Your task to perform on an android device: clear history in the chrome app Image 0: 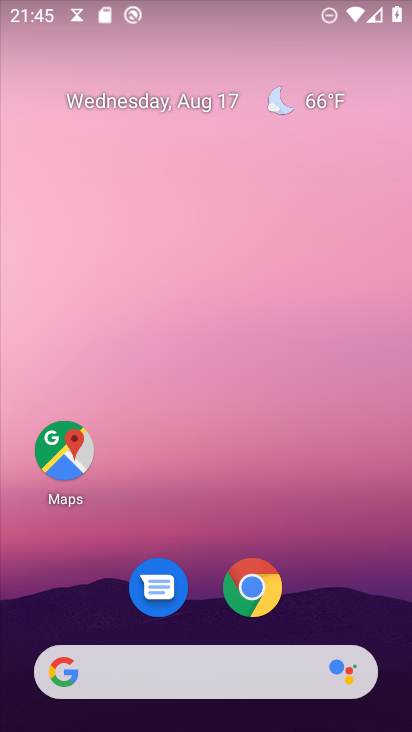
Step 0: click (249, 597)
Your task to perform on an android device: clear history in the chrome app Image 1: 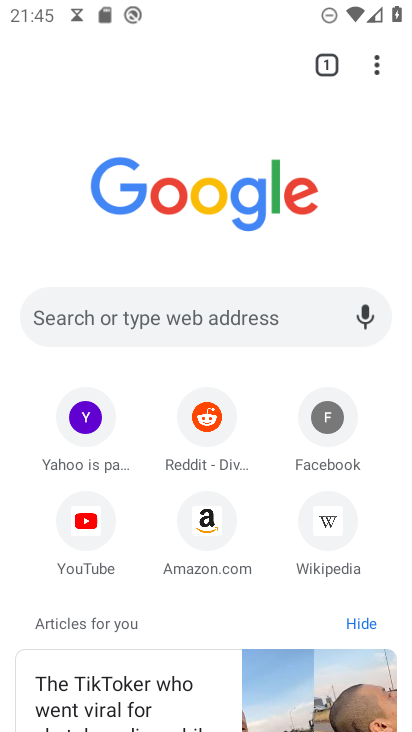
Step 1: click (381, 77)
Your task to perform on an android device: clear history in the chrome app Image 2: 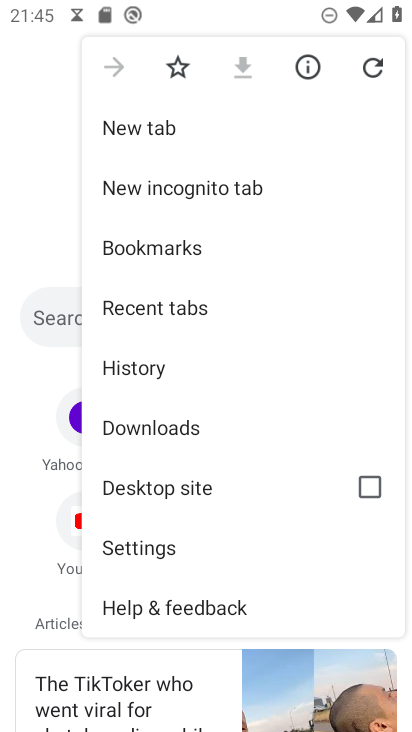
Step 2: click (133, 250)
Your task to perform on an android device: clear history in the chrome app Image 3: 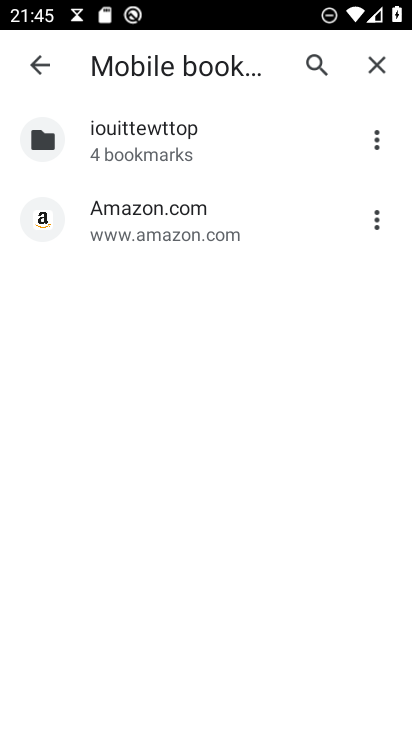
Step 3: click (42, 63)
Your task to perform on an android device: clear history in the chrome app Image 4: 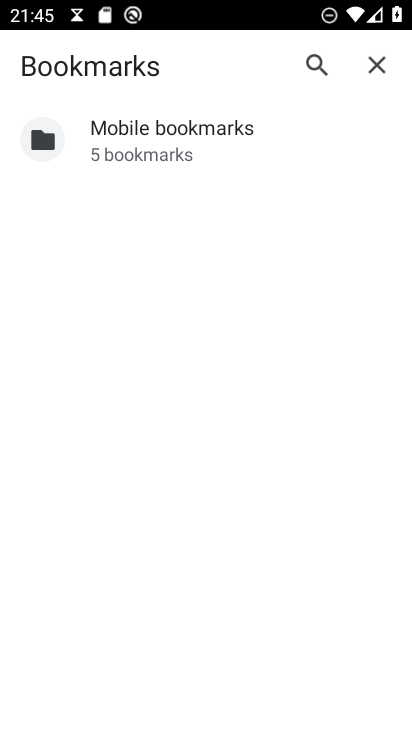
Step 4: click (382, 62)
Your task to perform on an android device: clear history in the chrome app Image 5: 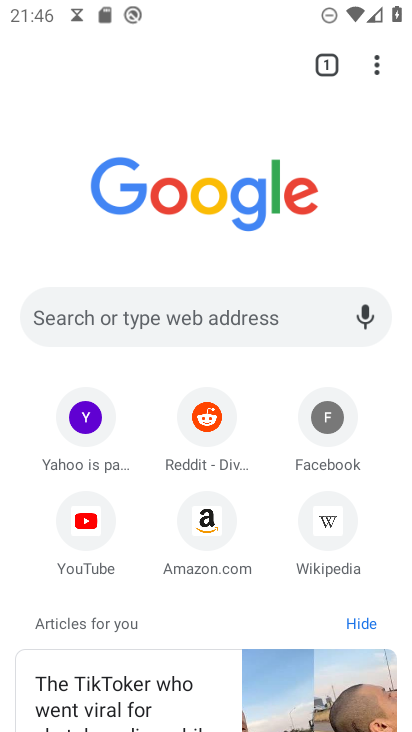
Step 5: click (384, 63)
Your task to perform on an android device: clear history in the chrome app Image 6: 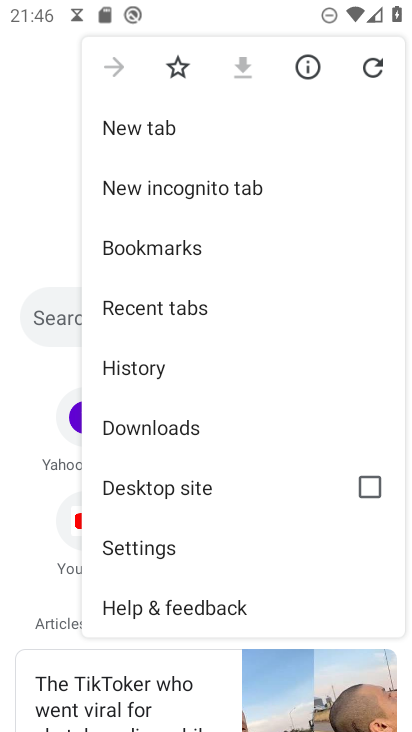
Step 6: click (123, 363)
Your task to perform on an android device: clear history in the chrome app Image 7: 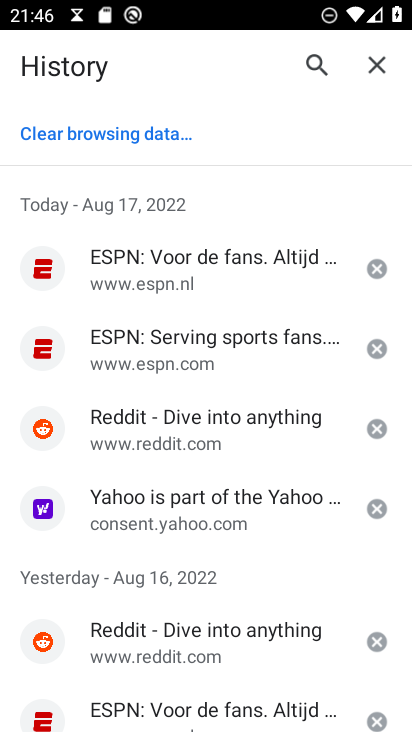
Step 7: click (103, 135)
Your task to perform on an android device: clear history in the chrome app Image 8: 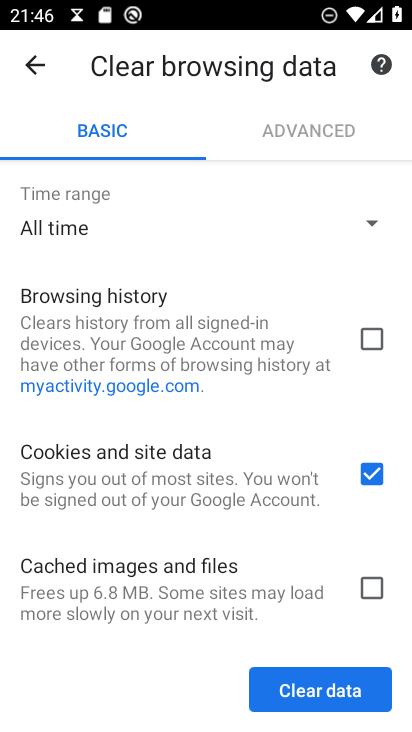
Step 8: click (370, 333)
Your task to perform on an android device: clear history in the chrome app Image 9: 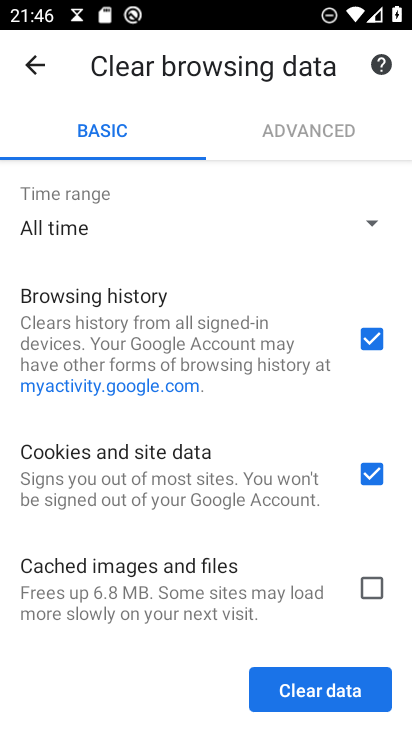
Step 9: click (367, 470)
Your task to perform on an android device: clear history in the chrome app Image 10: 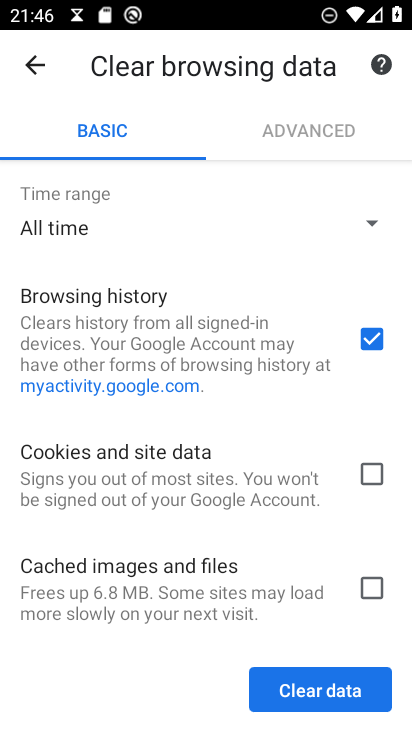
Step 10: click (318, 690)
Your task to perform on an android device: clear history in the chrome app Image 11: 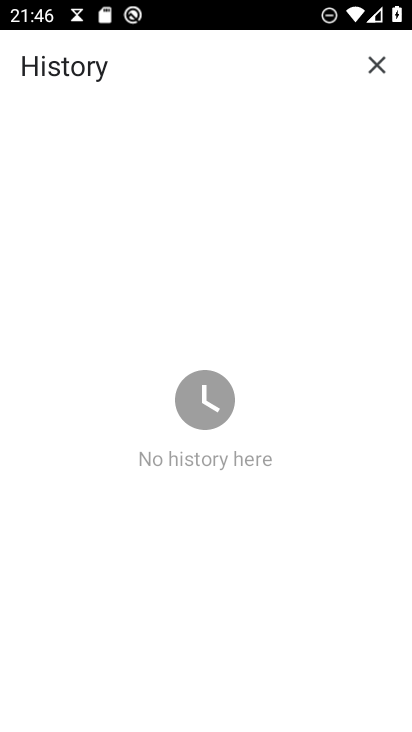
Step 11: task complete